Your task to perform on an android device: turn off airplane mode Image 0: 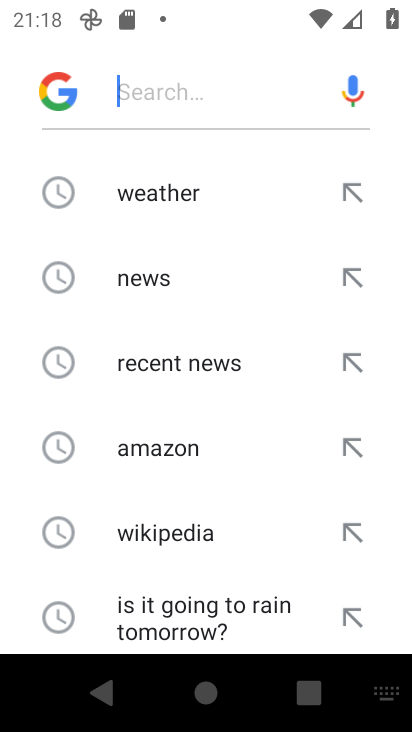
Step 0: press home button
Your task to perform on an android device: turn off airplane mode Image 1: 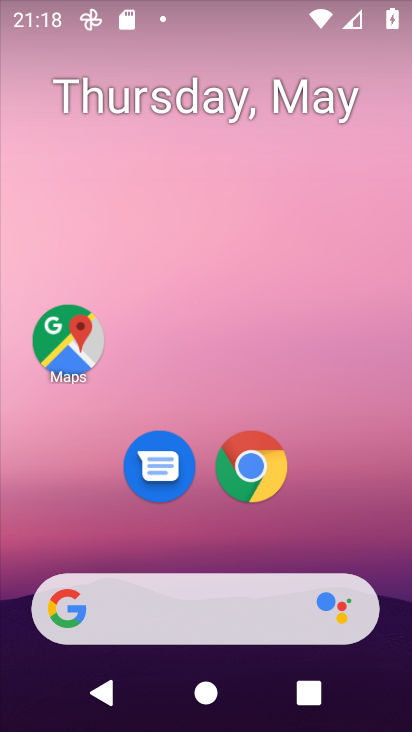
Step 1: drag from (320, 541) to (346, 172)
Your task to perform on an android device: turn off airplane mode Image 2: 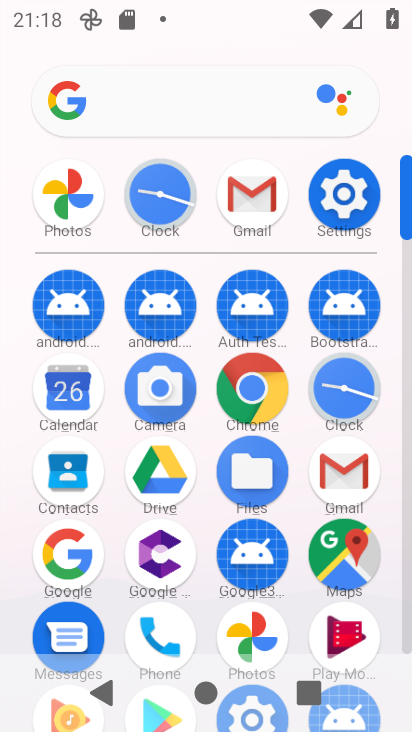
Step 2: click (326, 193)
Your task to perform on an android device: turn off airplane mode Image 3: 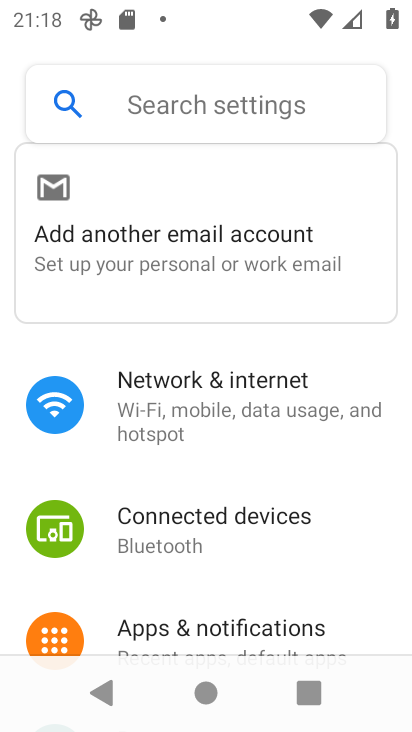
Step 3: click (227, 426)
Your task to perform on an android device: turn off airplane mode Image 4: 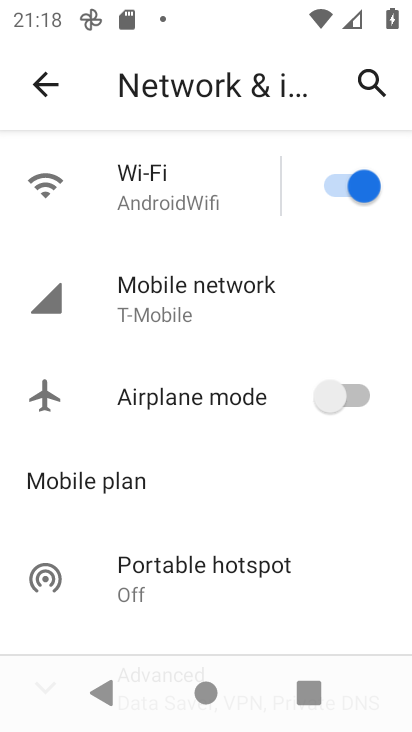
Step 4: click (303, 383)
Your task to perform on an android device: turn off airplane mode Image 5: 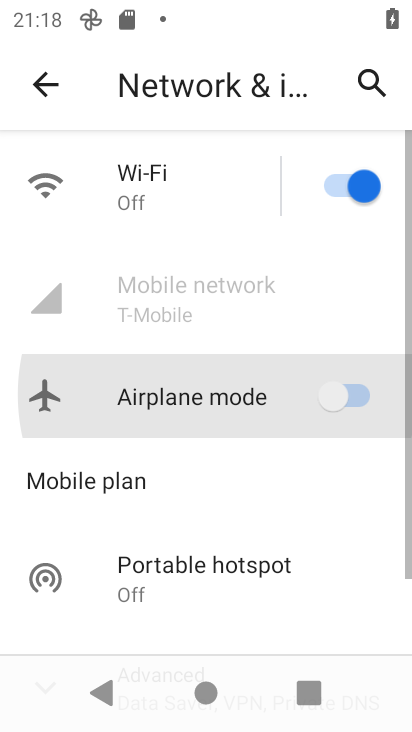
Step 5: click (303, 383)
Your task to perform on an android device: turn off airplane mode Image 6: 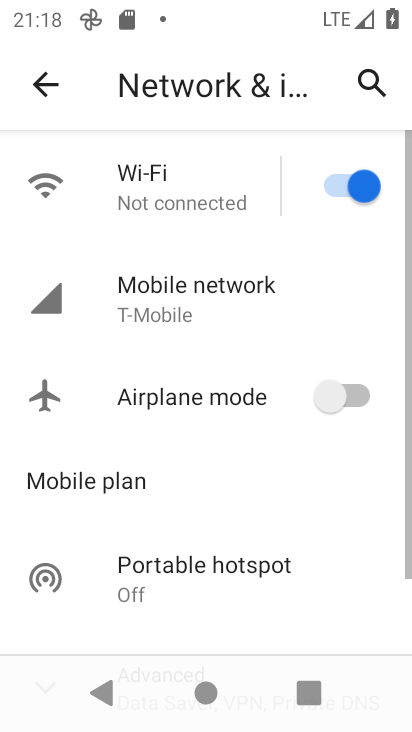
Step 6: task complete